Your task to perform on an android device: Open the contacts Image 0: 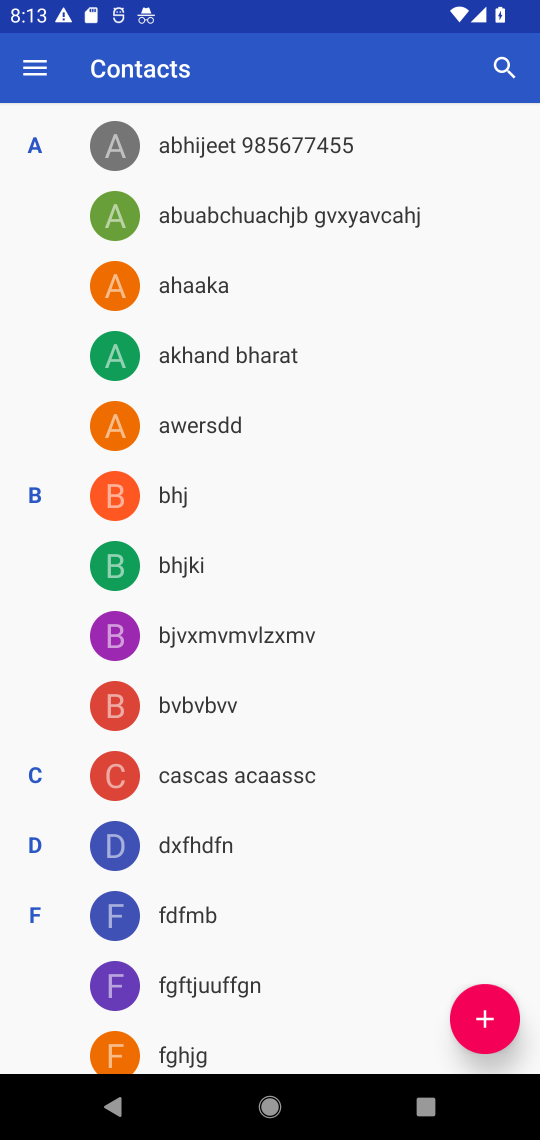
Step 0: drag from (284, 853) to (239, 359)
Your task to perform on an android device: Open the contacts Image 1: 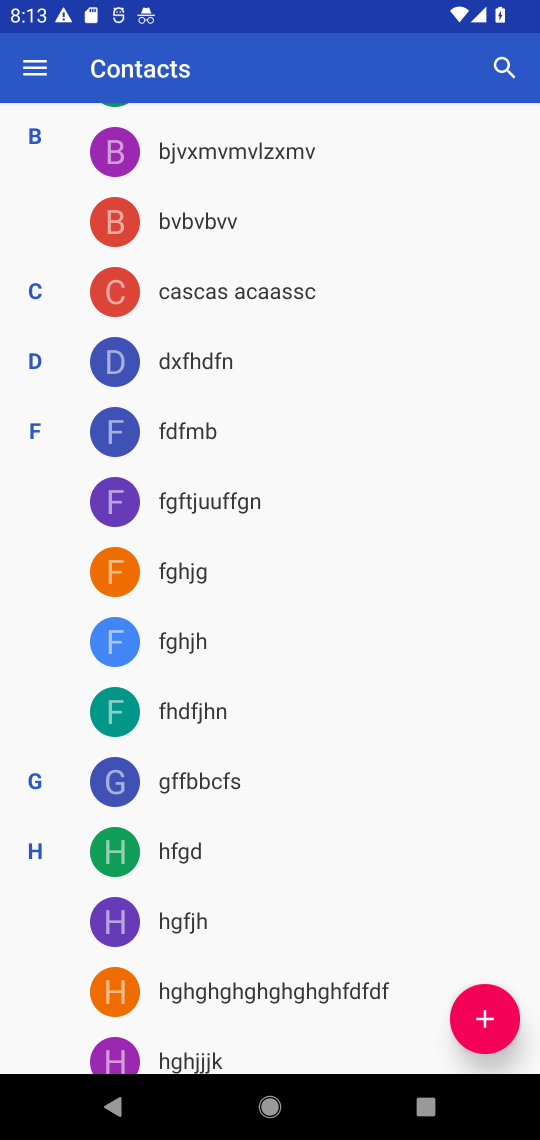
Step 1: task complete